Your task to perform on an android device: When is my next appointment? Image 0: 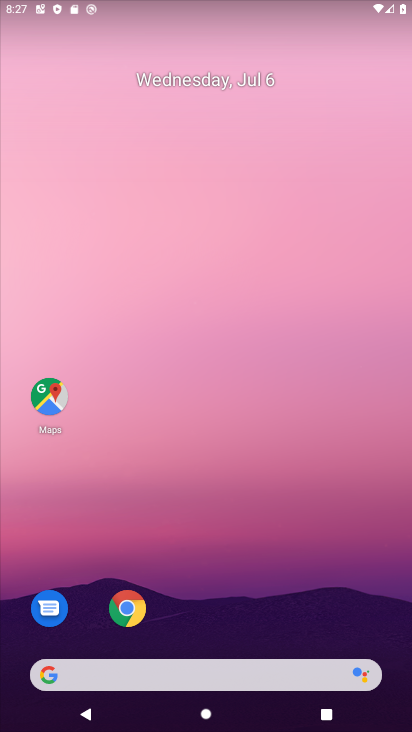
Step 0: drag from (184, 657) to (248, 311)
Your task to perform on an android device: When is my next appointment? Image 1: 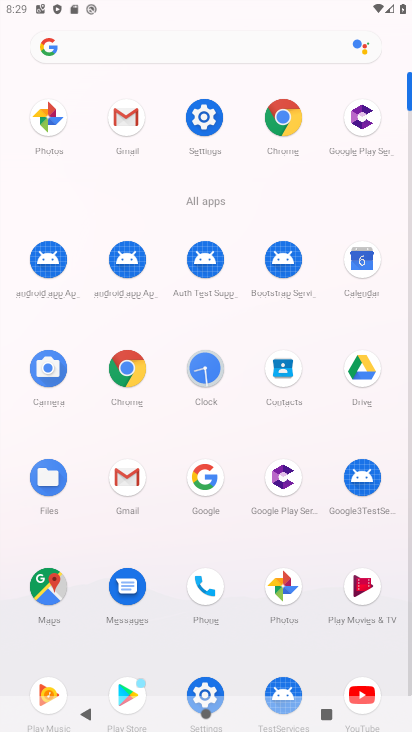
Step 1: click (361, 265)
Your task to perform on an android device: When is my next appointment? Image 2: 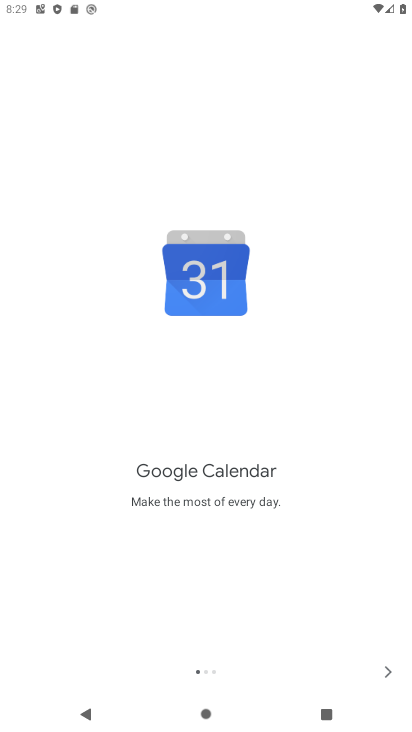
Step 2: click (386, 669)
Your task to perform on an android device: When is my next appointment? Image 3: 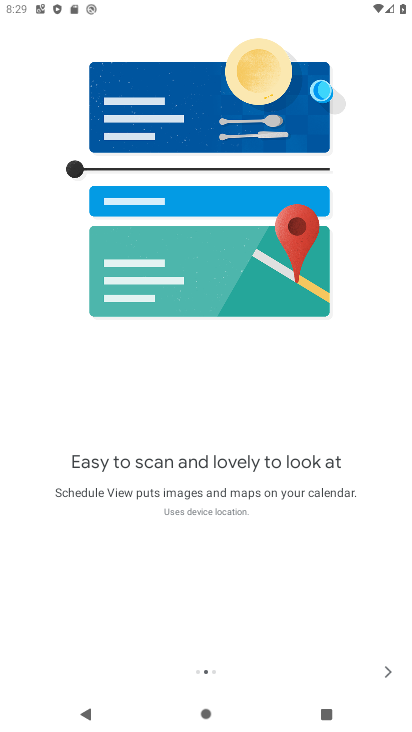
Step 3: click (386, 669)
Your task to perform on an android device: When is my next appointment? Image 4: 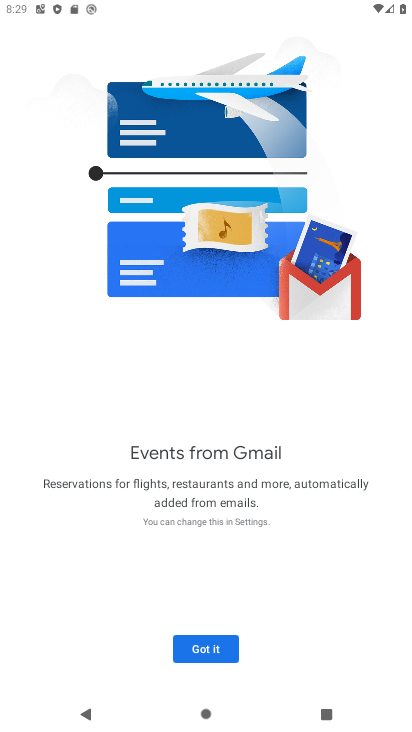
Step 4: click (211, 651)
Your task to perform on an android device: When is my next appointment? Image 5: 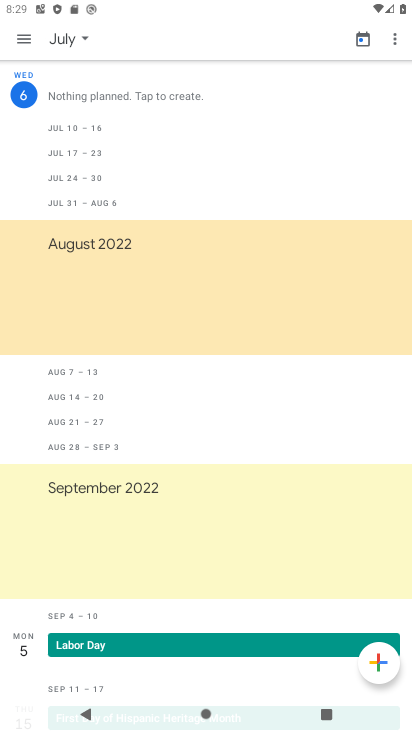
Step 5: task complete